Your task to perform on an android device: check the backup settings in the google photos Image 0: 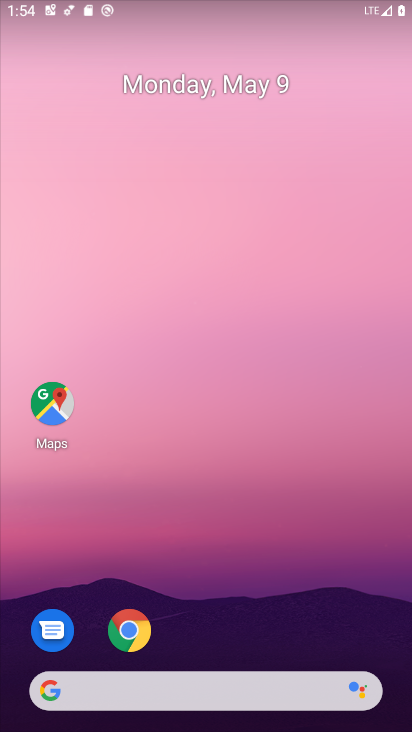
Step 0: drag from (218, 582) to (257, 183)
Your task to perform on an android device: check the backup settings in the google photos Image 1: 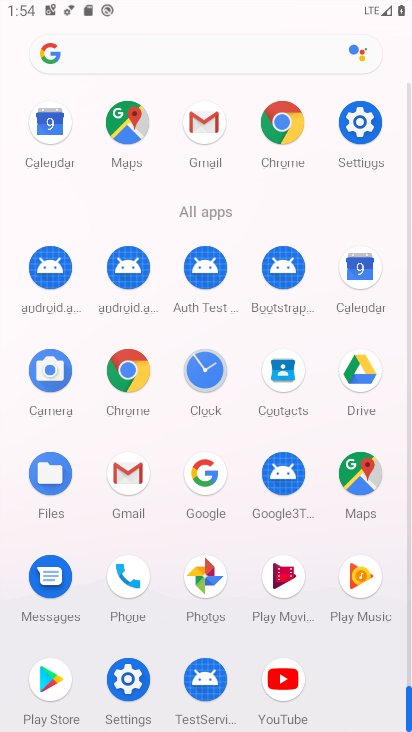
Step 1: click (192, 579)
Your task to perform on an android device: check the backup settings in the google photos Image 2: 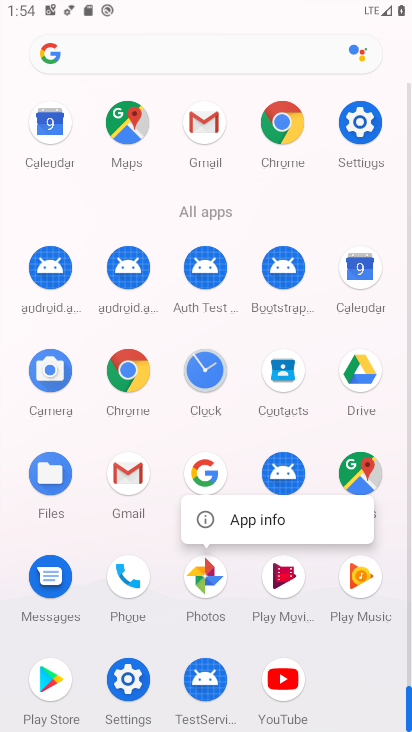
Step 2: click (191, 579)
Your task to perform on an android device: check the backup settings in the google photos Image 3: 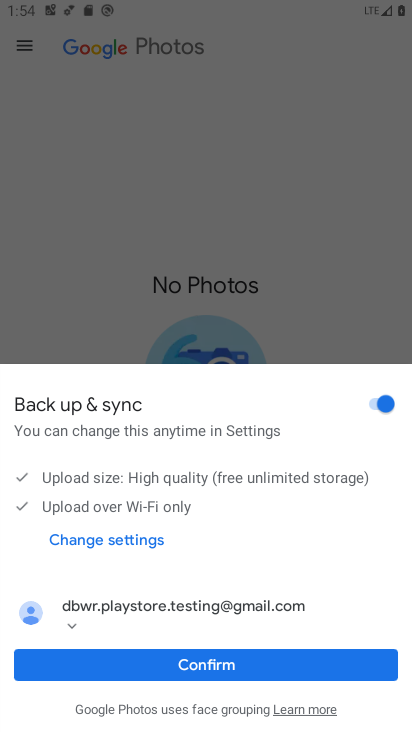
Step 3: click (255, 669)
Your task to perform on an android device: check the backup settings in the google photos Image 4: 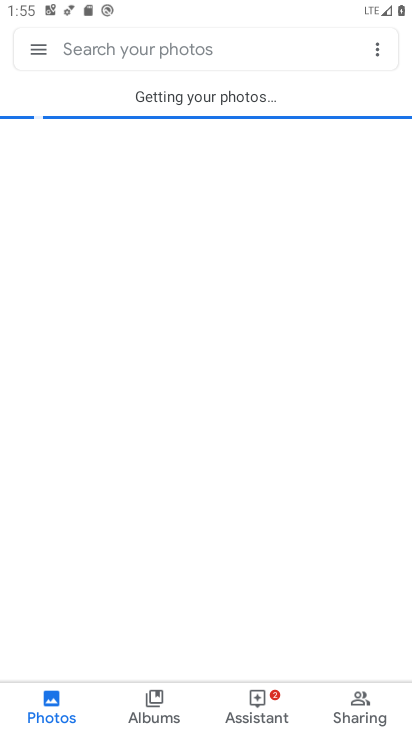
Step 4: click (32, 39)
Your task to perform on an android device: check the backup settings in the google photos Image 5: 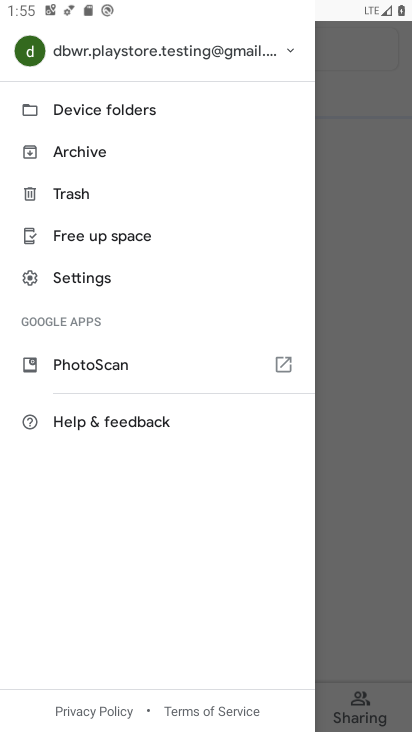
Step 5: click (90, 294)
Your task to perform on an android device: check the backup settings in the google photos Image 6: 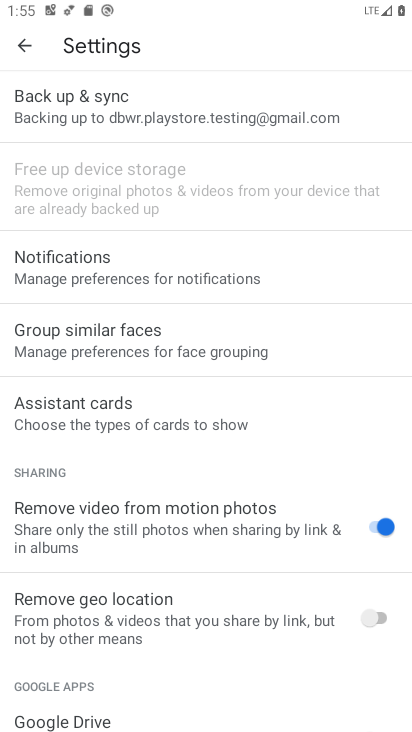
Step 6: click (235, 123)
Your task to perform on an android device: check the backup settings in the google photos Image 7: 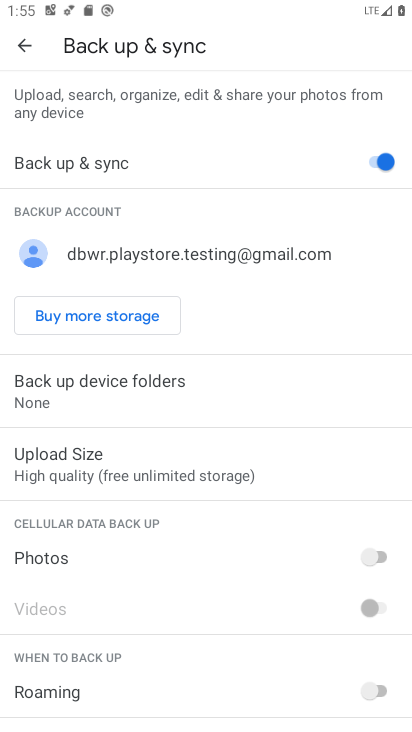
Step 7: task complete